Your task to perform on an android device: turn on priority inbox in the gmail app Image 0: 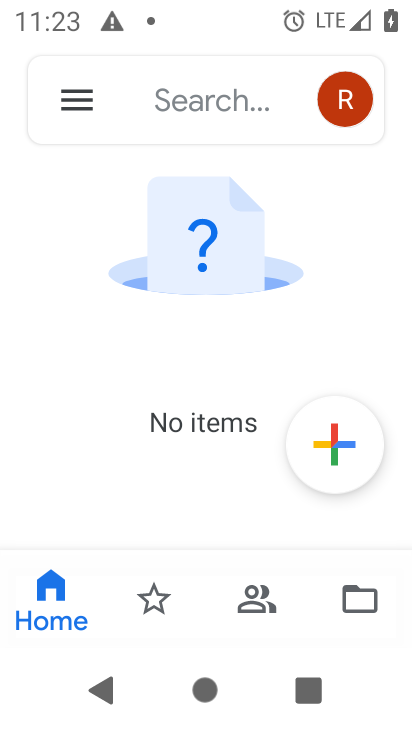
Step 0: press home button
Your task to perform on an android device: turn on priority inbox in the gmail app Image 1: 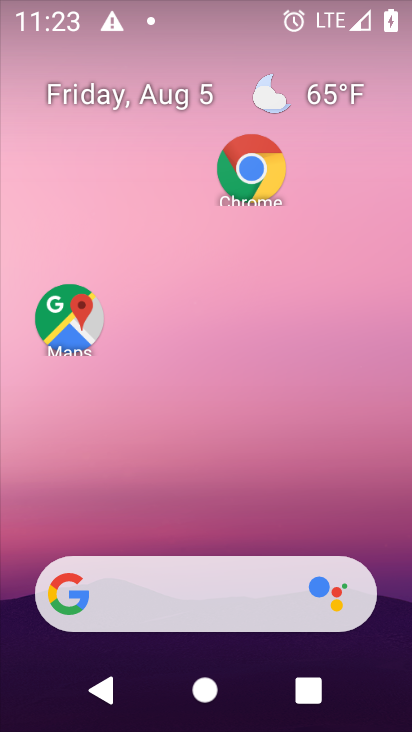
Step 1: drag from (177, 514) to (153, 159)
Your task to perform on an android device: turn on priority inbox in the gmail app Image 2: 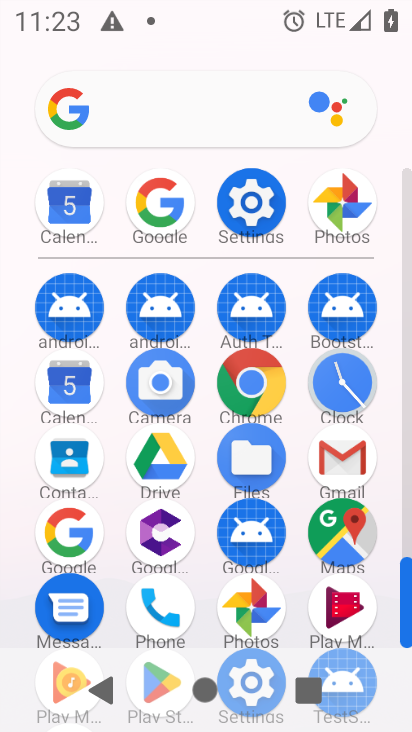
Step 2: click (310, 465)
Your task to perform on an android device: turn on priority inbox in the gmail app Image 3: 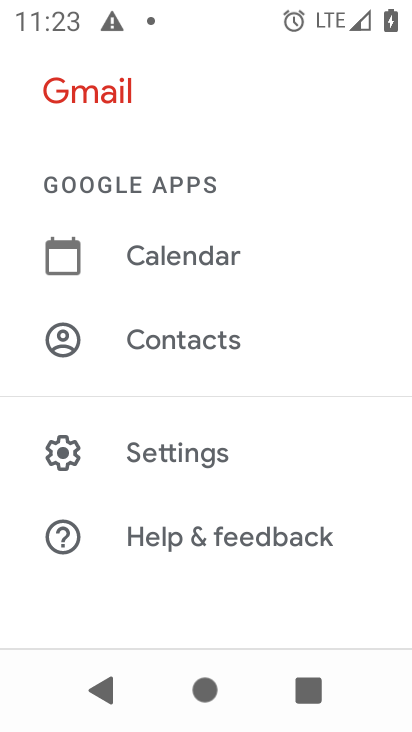
Step 3: click (223, 444)
Your task to perform on an android device: turn on priority inbox in the gmail app Image 4: 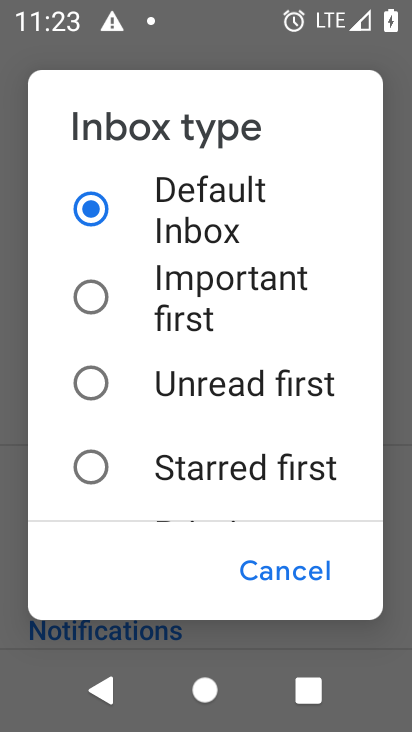
Step 4: drag from (214, 446) to (218, 154)
Your task to perform on an android device: turn on priority inbox in the gmail app Image 5: 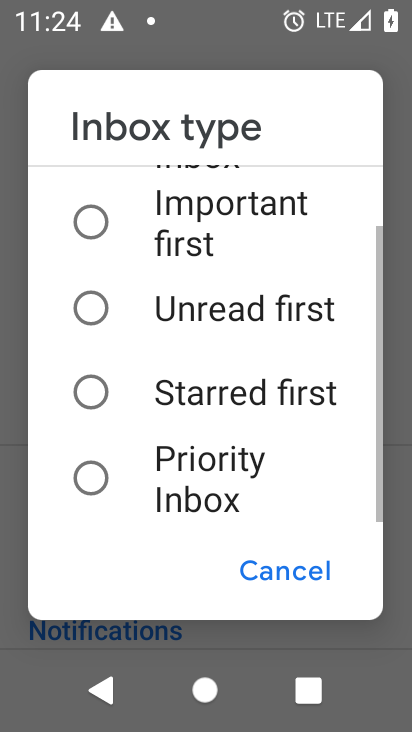
Step 5: click (194, 447)
Your task to perform on an android device: turn on priority inbox in the gmail app Image 6: 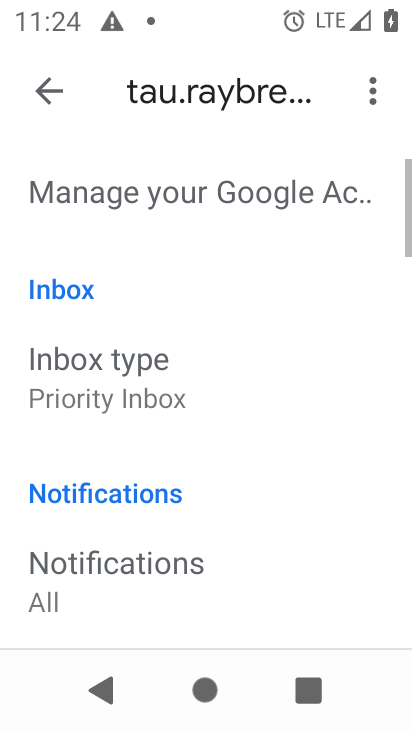
Step 6: task complete